Your task to perform on an android device: Is it going to rain today? Image 0: 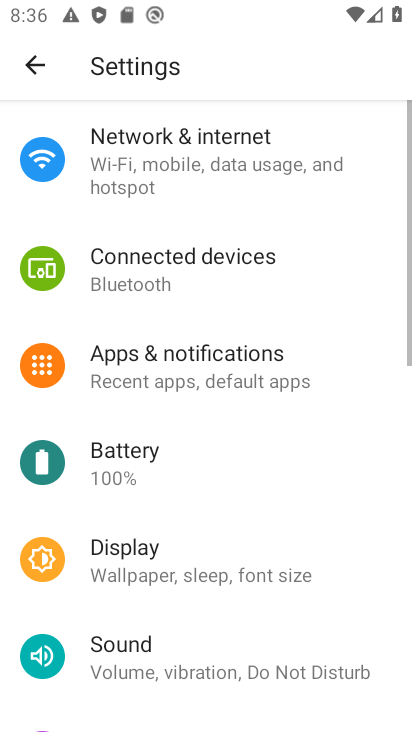
Step 0: drag from (285, 695) to (212, 256)
Your task to perform on an android device: Is it going to rain today? Image 1: 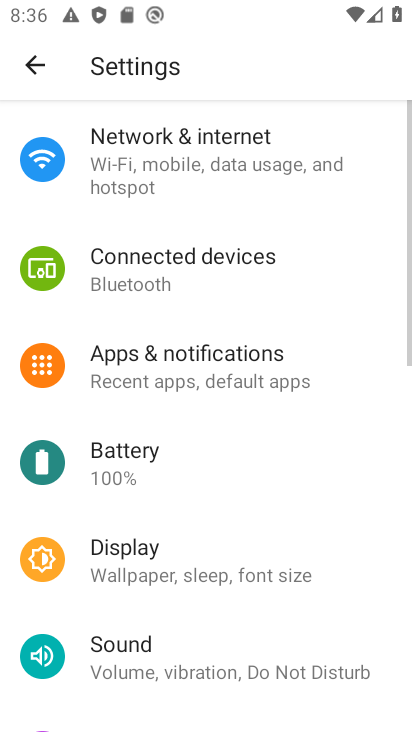
Step 1: click (16, 55)
Your task to perform on an android device: Is it going to rain today? Image 2: 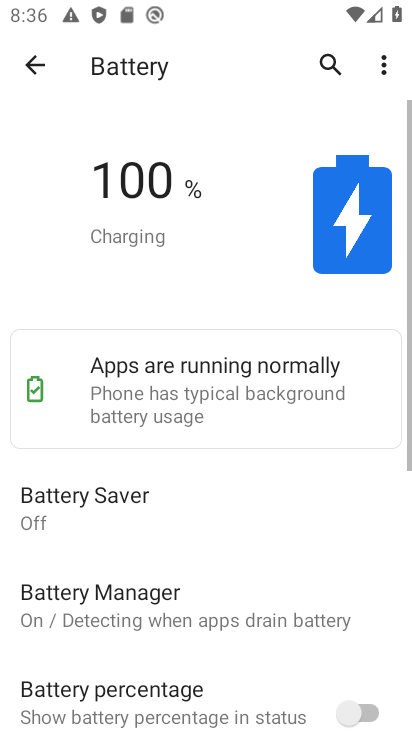
Step 2: click (31, 50)
Your task to perform on an android device: Is it going to rain today? Image 3: 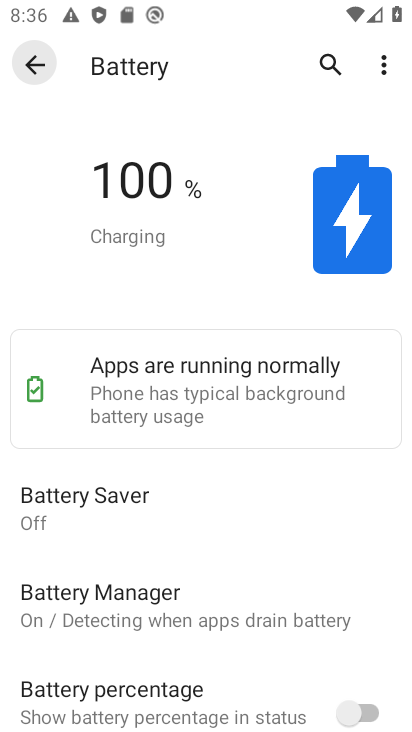
Step 3: click (31, 50)
Your task to perform on an android device: Is it going to rain today? Image 4: 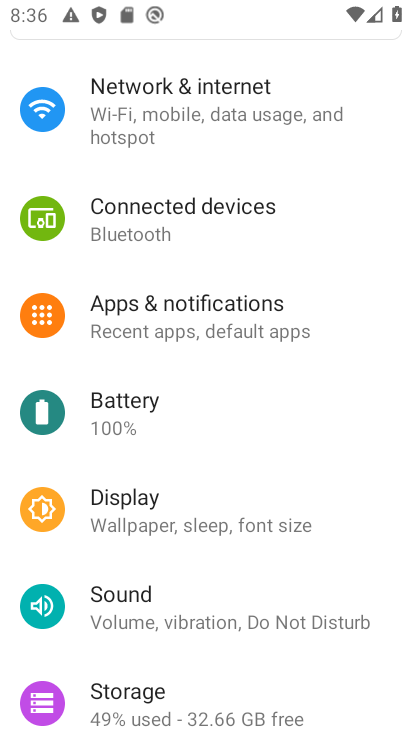
Step 4: drag from (205, 380) to (208, 492)
Your task to perform on an android device: Is it going to rain today? Image 5: 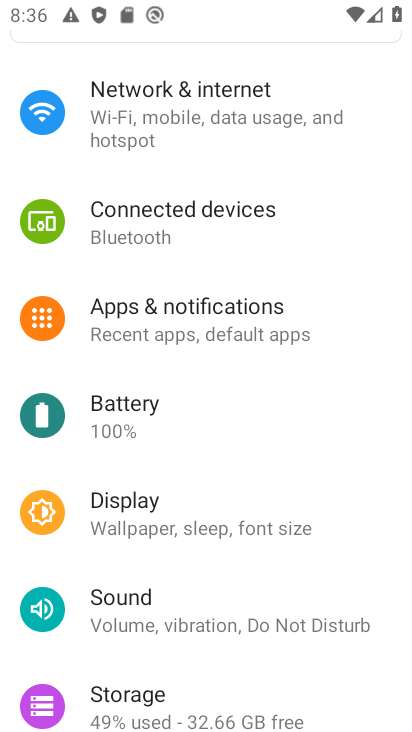
Step 5: drag from (193, 209) to (269, 616)
Your task to perform on an android device: Is it going to rain today? Image 6: 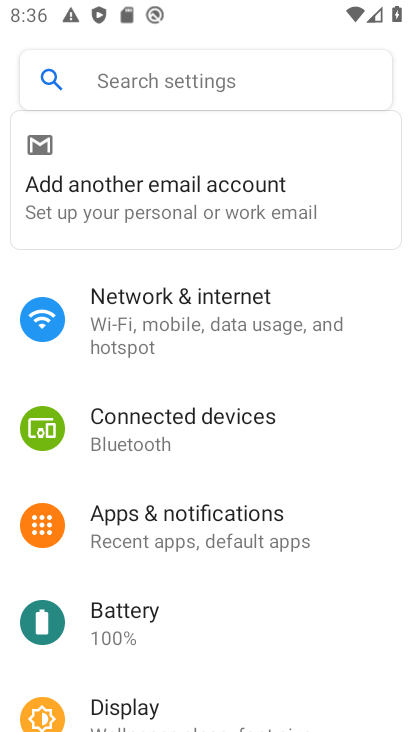
Step 6: press back button
Your task to perform on an android device: Is it going to rain today? Image 7: 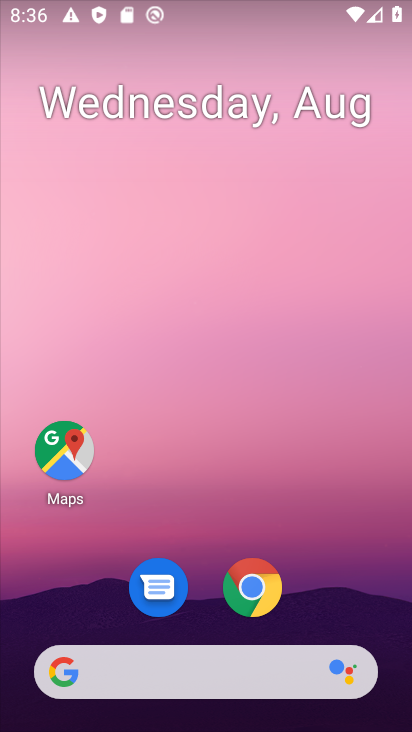
Step 7: click (267, 106)
Your task to perform on an android device: Is it going to rain today? Image 8: 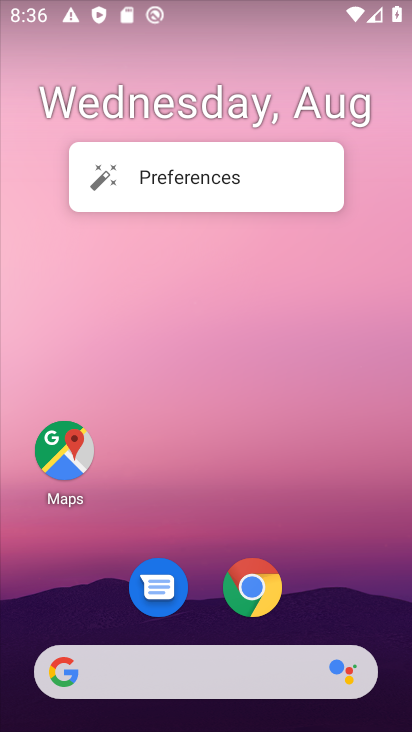
Step 8: click (278, 115)
Your task to perform on an android device: Is it going to rain today? Image 9: 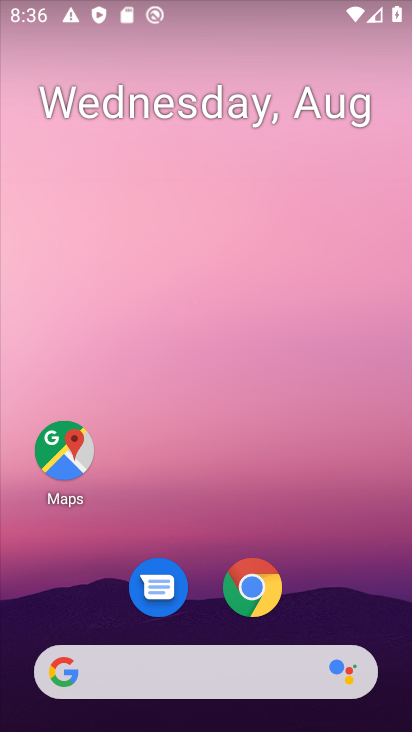
Step 9: drag from (49, 176) to (388, 252)
Your task to perform on an android device: Is it going to rain today? Image 10: 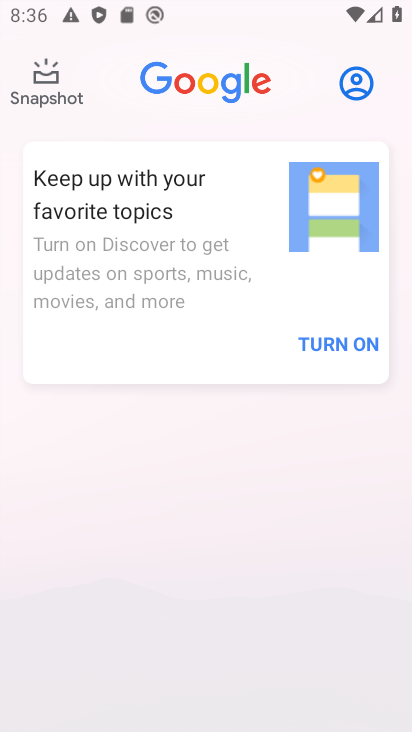
Step 10: click (337, 344)
Your task to perform on an android device: Is it going to rain today? Image 11: 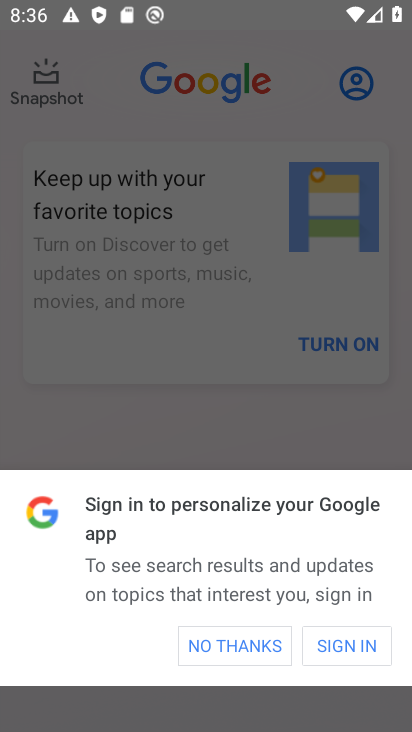
Step 11: click (256, 645)
Your task to perform on an android device: Is it going to rain today? Image 12: 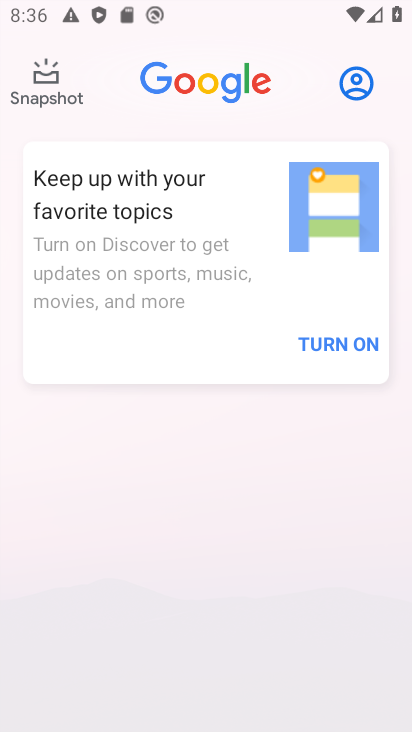
Step 12: click (345, 340)
Your task to perform on an android device: Is it going to rain today? Image 13: 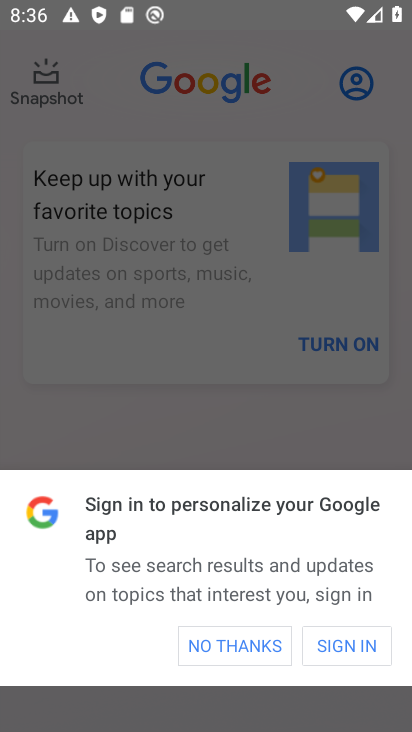
Step 13: click (253, 648)
Your task to perform on an android device: Is it going to rain today? Image 14: 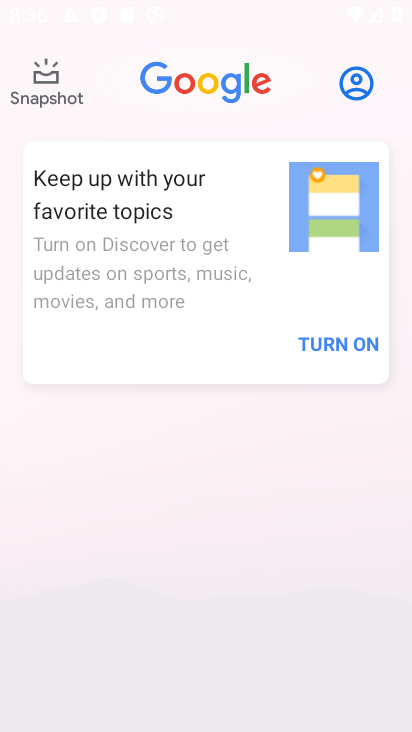
Step 14: click (224, 638)
Your task to perform on an android device: Is it going to rain today? Image 15: 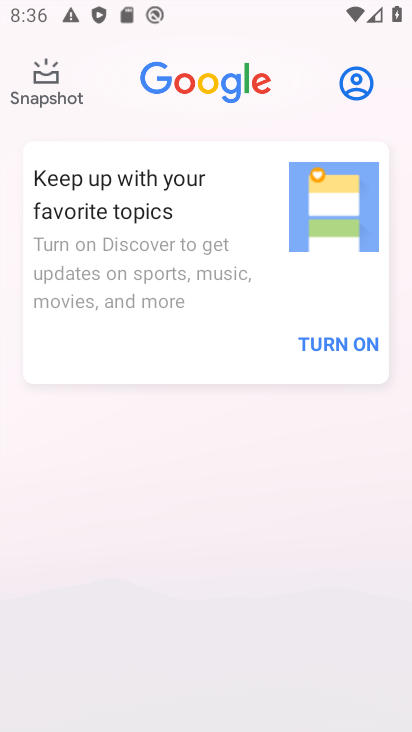
Step 15: click (224, 638)
Your task to perform on an android device: Is it going to rain today? Image 16: 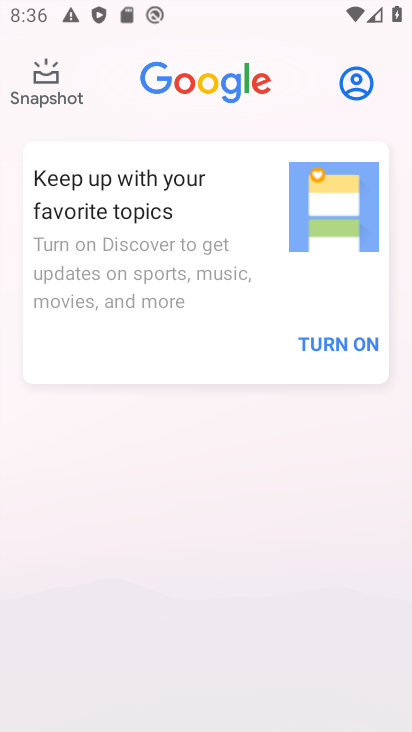
Step 16: click (173, 81)
Your task to perform on an android device: Is it going to rain today? Image 17: 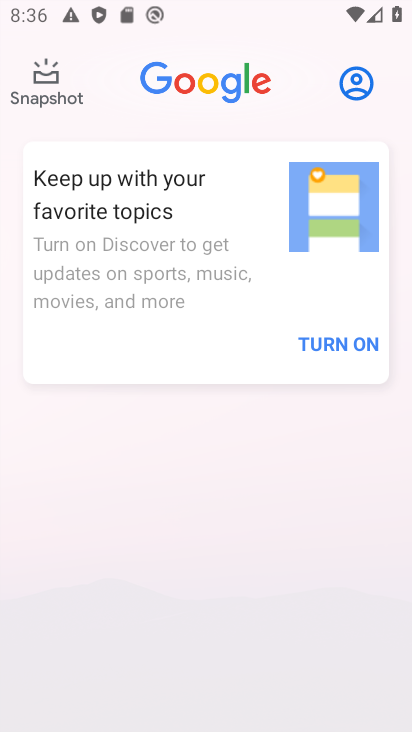
Step 17: click (174, 80)
Your task to perform on an android device: Is it going to rain today? Image 18: 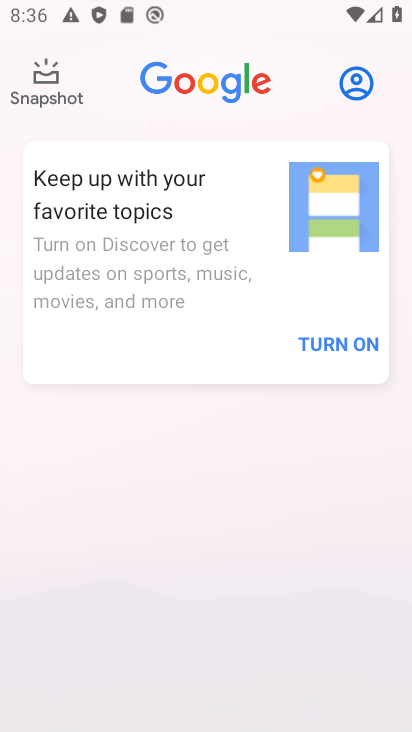
Step 18: click (83, 97)
Your task to perform on an android device: Is it going to rain today? Image 19: 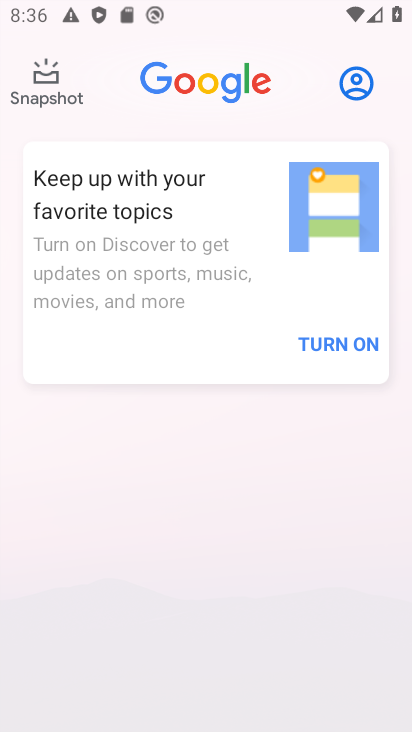
Step 19: click (85, 98)
Your task to perform on an android device: Is it going to rain today? Image 20: 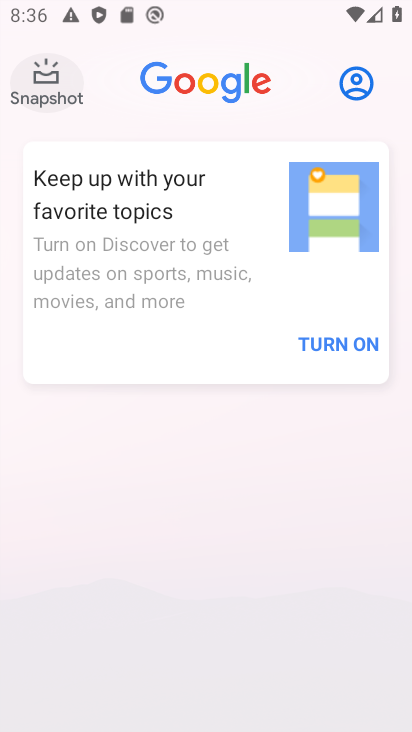
Step 20: click (85, 98)
Your task to perform on an android device: Is it going to rain today? Image 21: 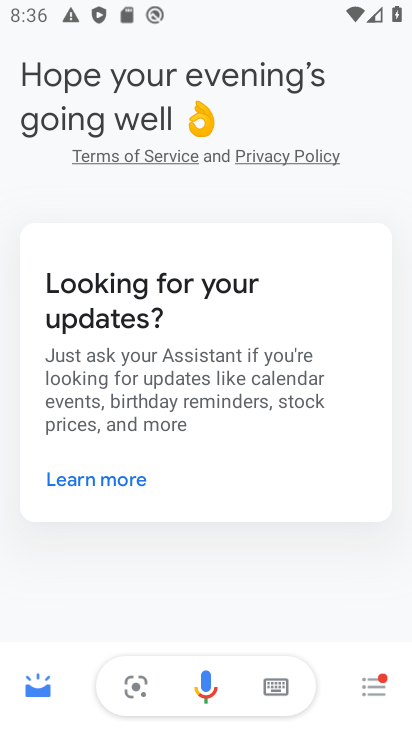
Step 21: click (213, 180)
Your task to perform on an android device: Is it going to rain today? Image 22: 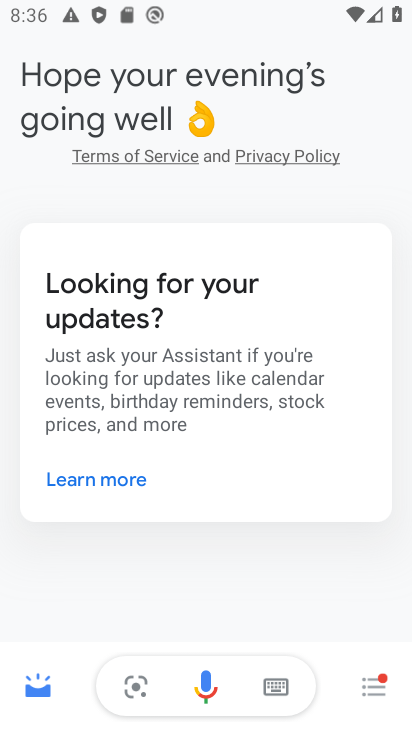
Step 22: click (226, 188)
Your task to perform on an android device: Is it going to rain today? Image 23: 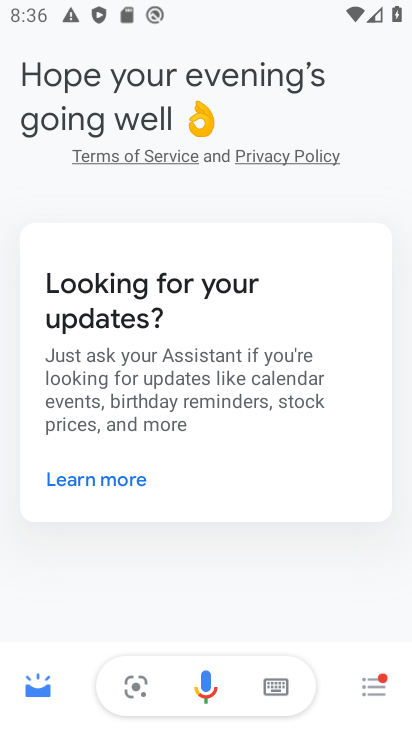
Step 23: click (48, 686)
Your task to perform on an android device: Is it going to rain today? Image 24: 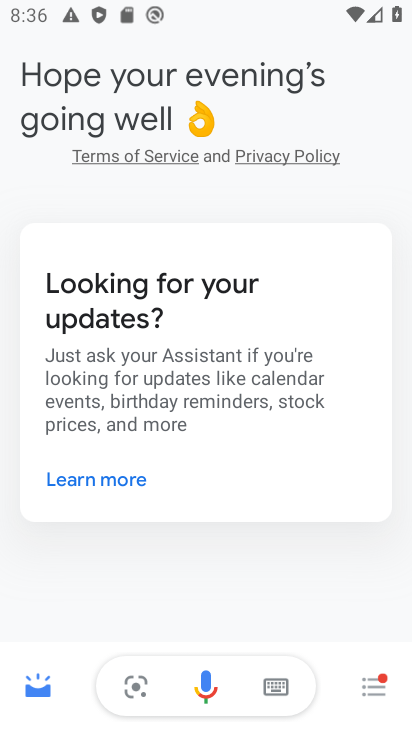
Step 24: click (48, 666)
Your task to perform on an android device: Is it going to rain today? Image 25: 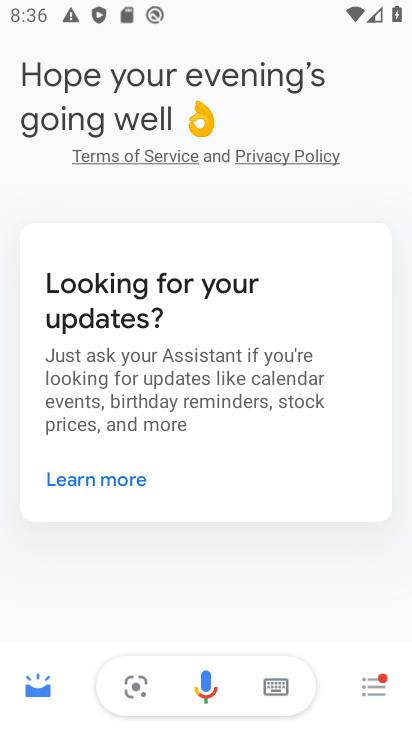
Step 25: drag from (48, 665) to (142, 610)
Your task to perform on an android device: Is it going to rain today? Image 26: 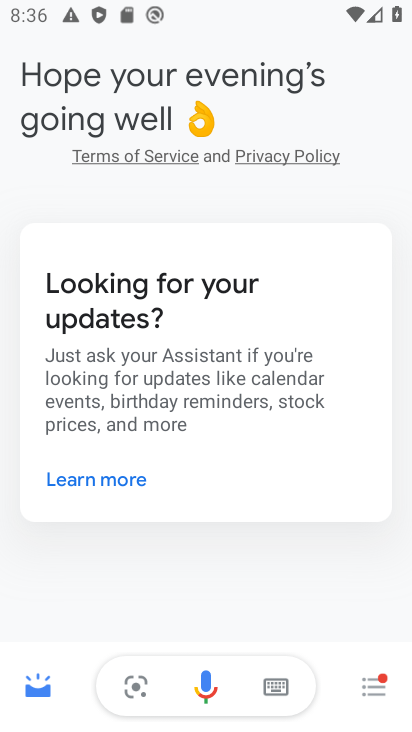
Step 26: click (180, 591)
Your task to perform on an android device: Is it going to rain today? Image 27: 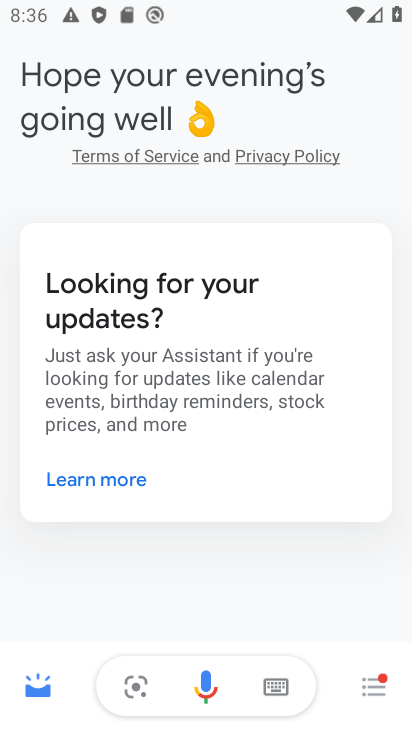
Step 27: click (265, 584)
Your task to perform on an android device: Is it going to rain today? Image 28: 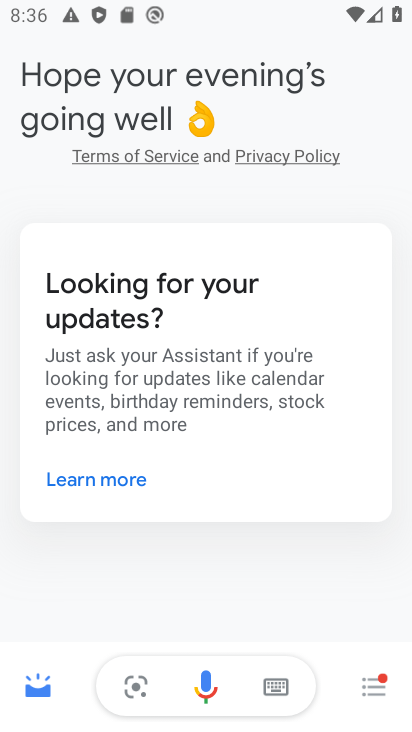
Step 28: click (341, 566)
Your task to perform on an android device: Is it going to rain today? Image 29: 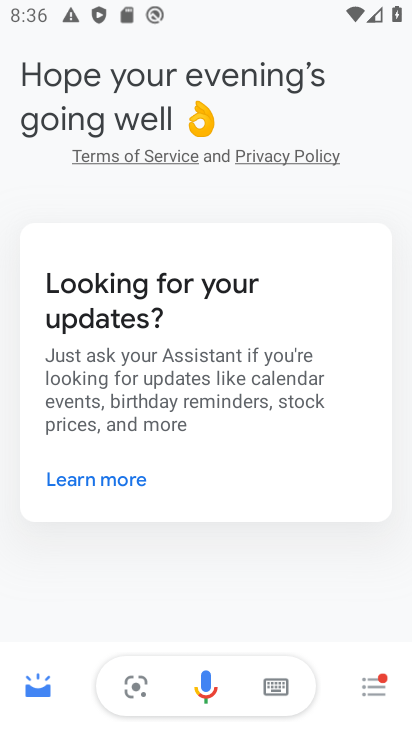
Step 29: click (367, 123)
Your task to perform on an android device: Is it going to rain today? Image 30: 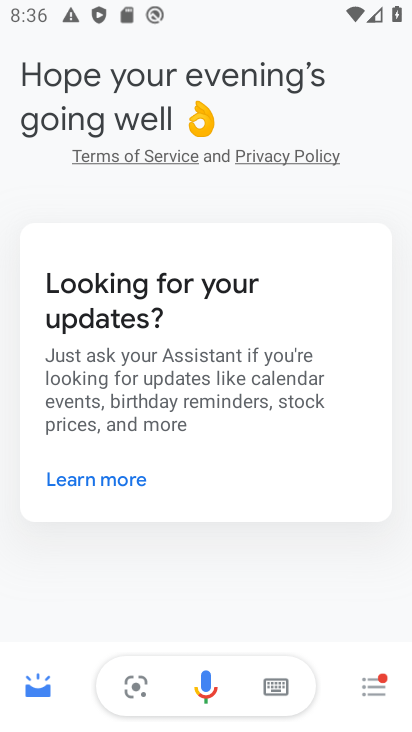
Step 30: press back button
Your task to perform on an android device: Is it going to rain today? Image 31: 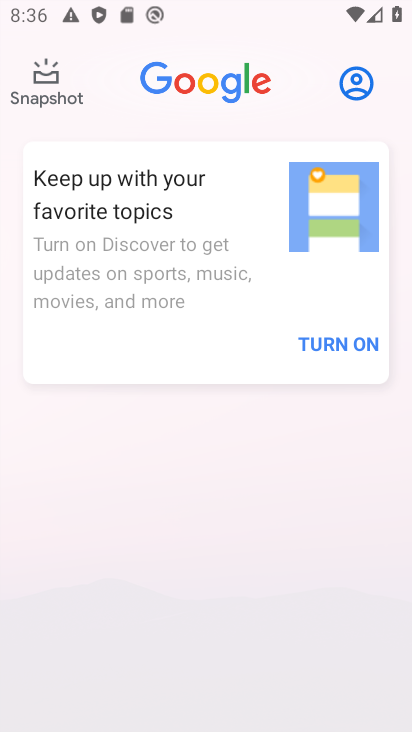
Step 31: press home button
Your task to perform on an android device: Is it going to rain today? Image 32: 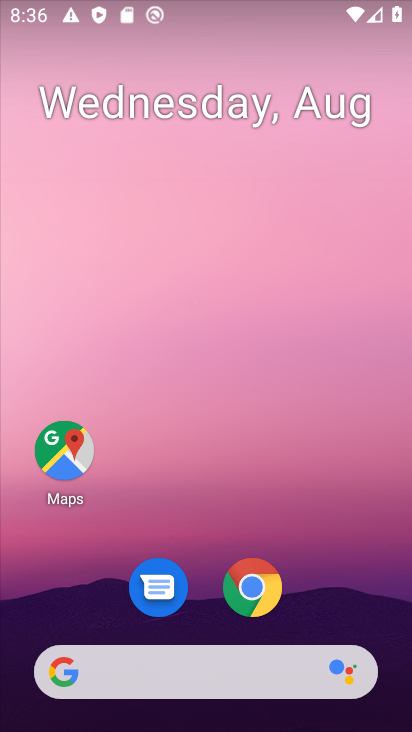
Step 32: drag from (208, 551) to (152, 70)
Your task to perform on an android device: Is it going to rain today? Image 33: 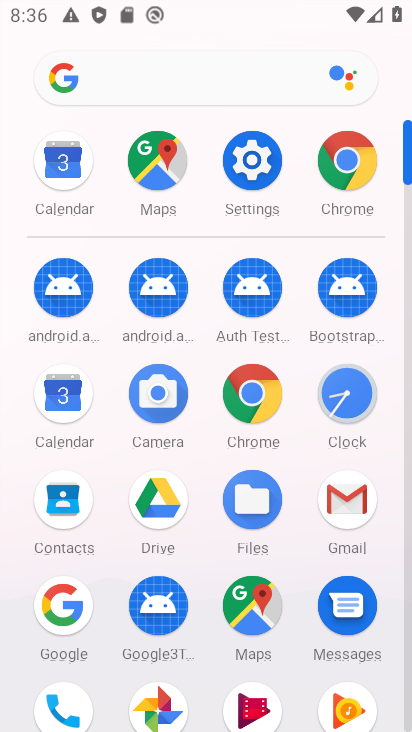
Step 33: click (347, 157)
Your task to perform on an android device: Is it going to rain today? Image 34: 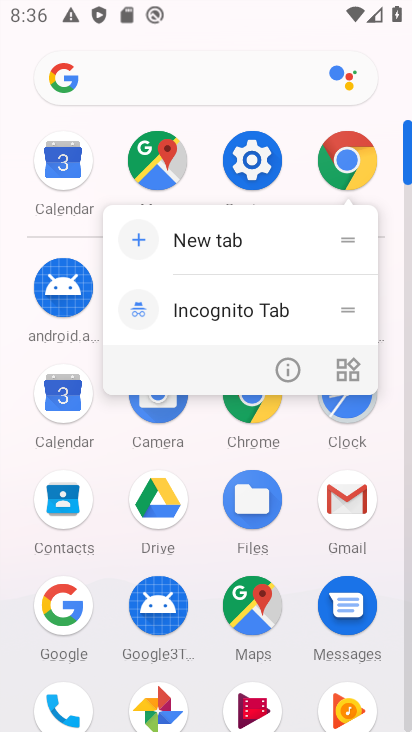
Step 34: click (178, 237)
Your task to perform on an android device: Is it going to rain today? Image 35: 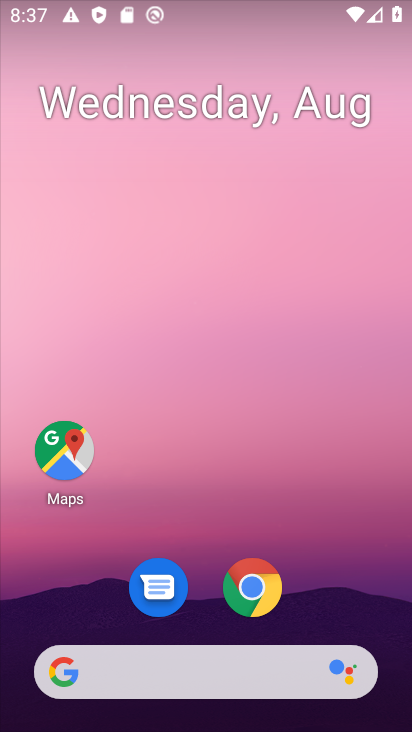
Step 35: drag from (194, 646) to (173, 5)
Your task to perform on an android device: Is it going to rain today? Image 36: 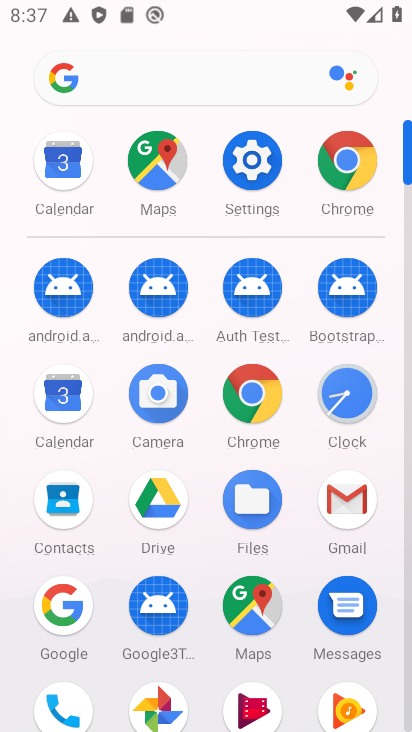
Step 36: click (337, 150)
Your task to perform on an android device: Is it going to rain today? Image 37: 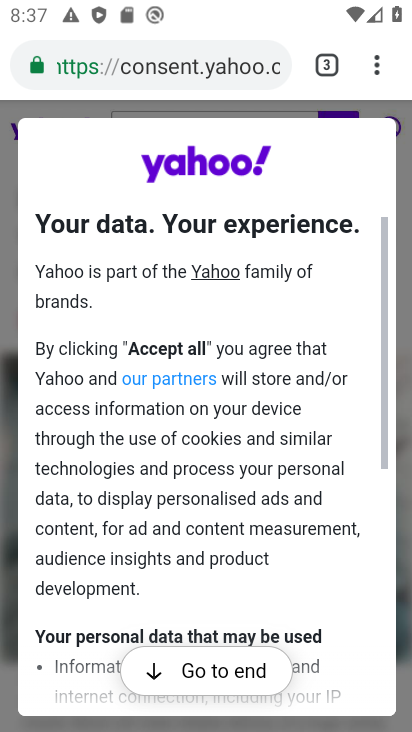
Step 37: drag from (375, 66) to (116, 127)
Your task to perform on an android device: Is it going to rain today? Image 38: 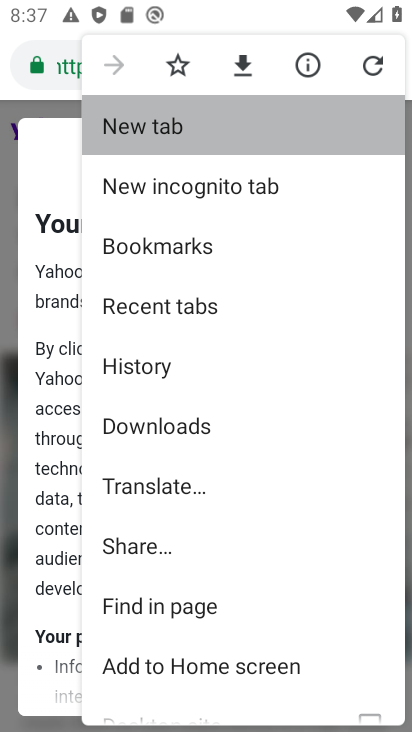
Step 38: click (117, 126)
Your task to perform on an android device: Is it going to rain today? Image 39: 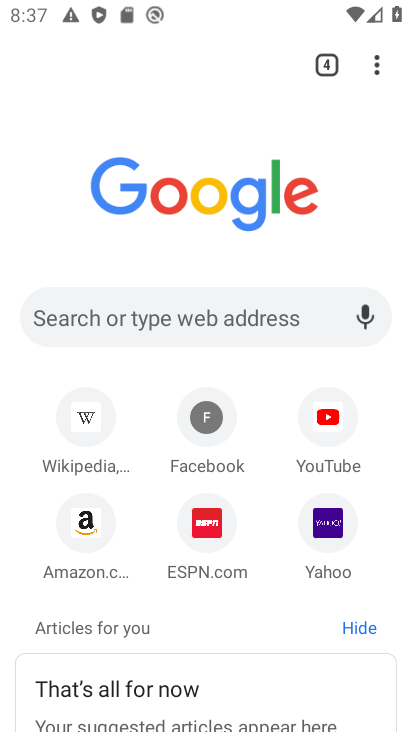
Step 39: click (99, 318)
Your task to perform on an android device: Is it going to rain today? Image 40: 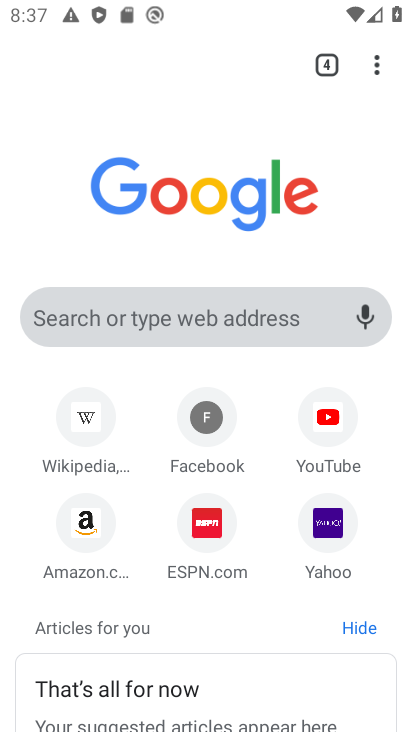
Step 40: click (99, 318)
Your task to perform on an android device: Is it going to rain today? Image 41: 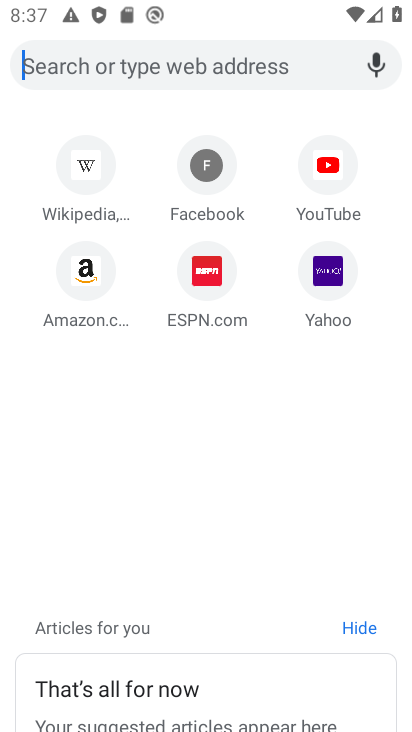
Step 41: click (99, 318)
Your task to perform on an android device: Is it going to rain today? Image 42: 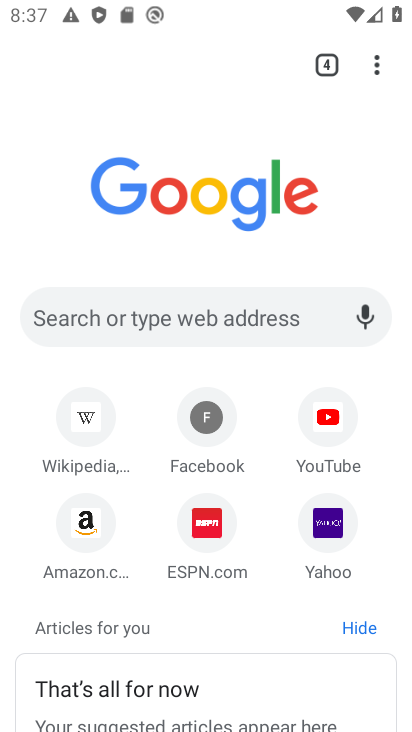
Step 42: click (53, 317)
Your task to perform on an android device: Is it going to rain today? Image 43: 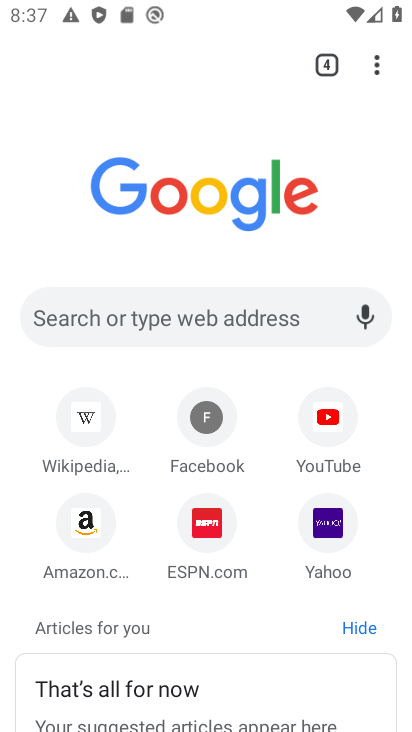
Step 43: click (53, 317)
Your task to perform on an android device: Is it going to rain today? Image 44: 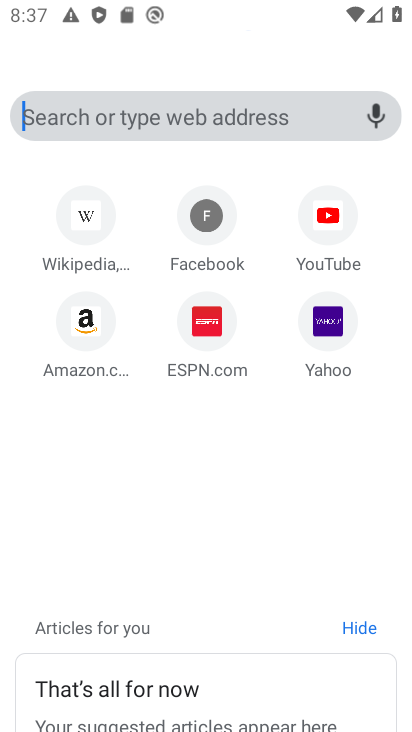
Step 44: click (53, 317)
Your task to perform on an android device: Is it going to rain today? Image 45: 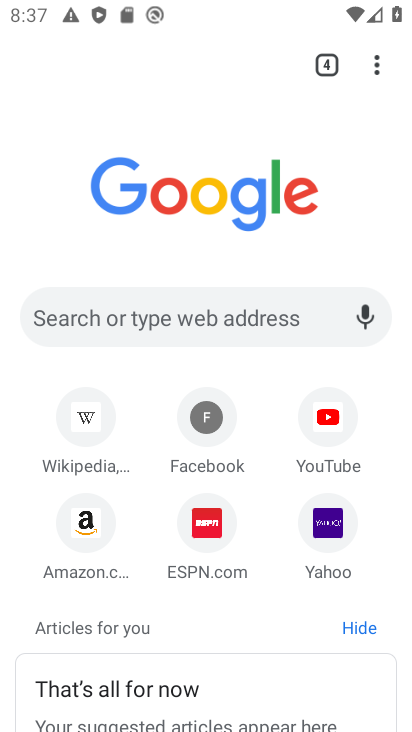
Step 45: click (55, 314)
Your task to perform on an android device: Is it going to rain today? Image 46: 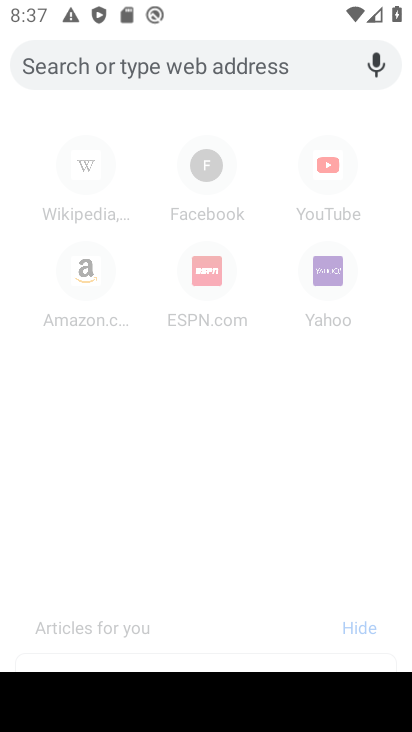
Step 46: type "is it going to rain today?"
Your task to perform on an android device: Is it going to rain today? Image 47: 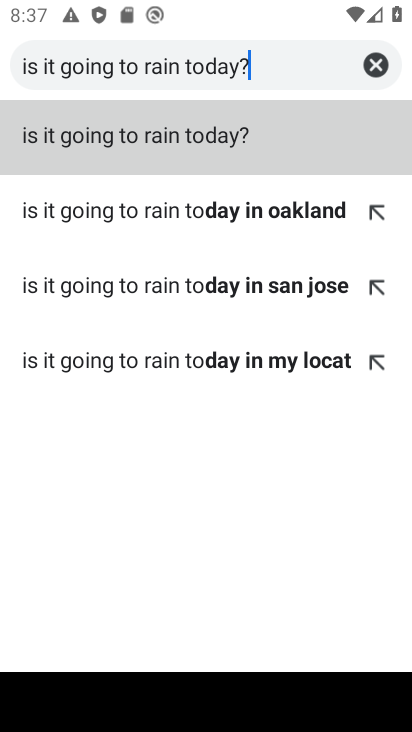
Step 47: click (141, 132)
Your task to perform on an android device: Is it going to rain today? Image 48: 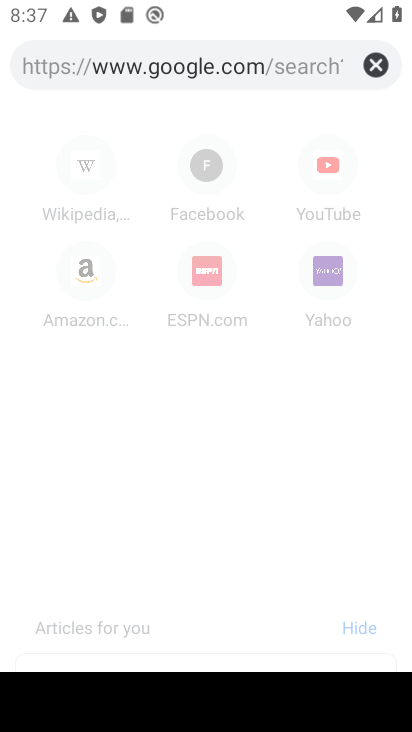
Step 48: click (147, 135)
Your task to perform on an android device: Is it going to rain today? Image 49: 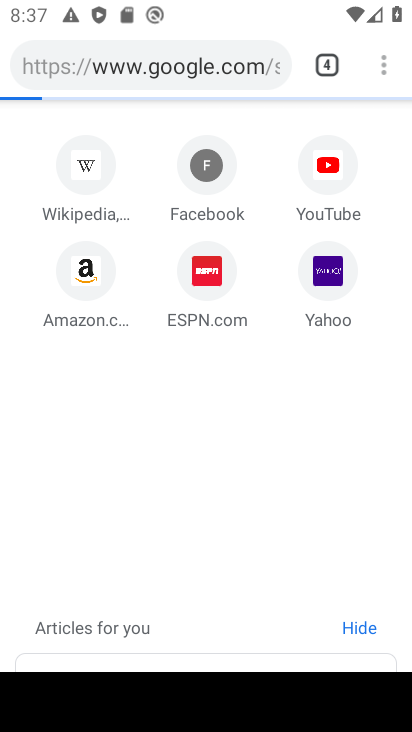
Step 49: click (147, 135)
Your task to perform on an android device: Is it going to rain today? Image 50: 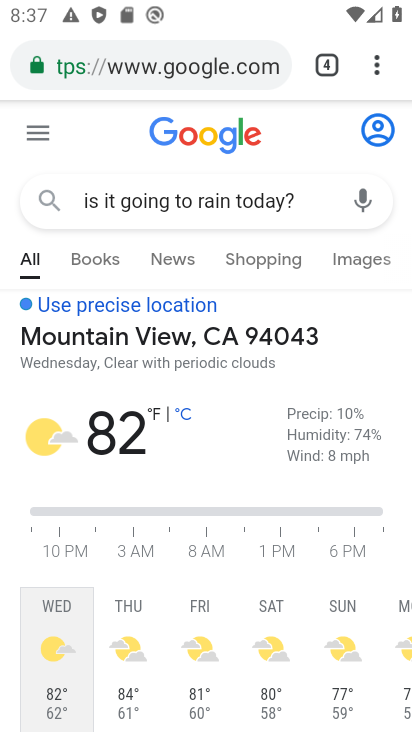
Step 50: click (211, 124)
Your task to perform on an android device: Is it going to rain today? Image 51: 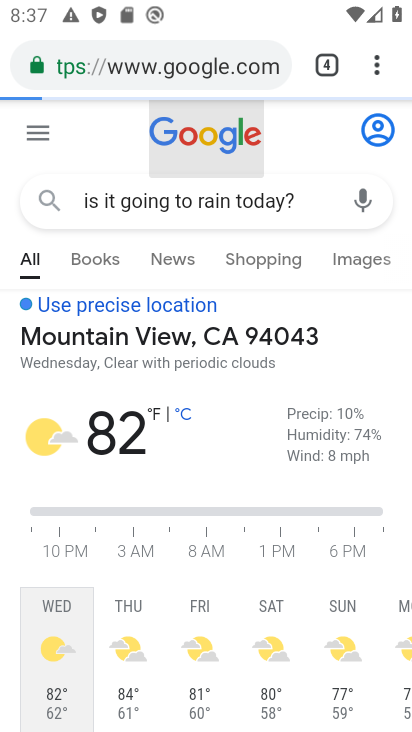
Step 51: task complete